Your task to perform on an android device: turn on the 12-hour format for clock Image 0: 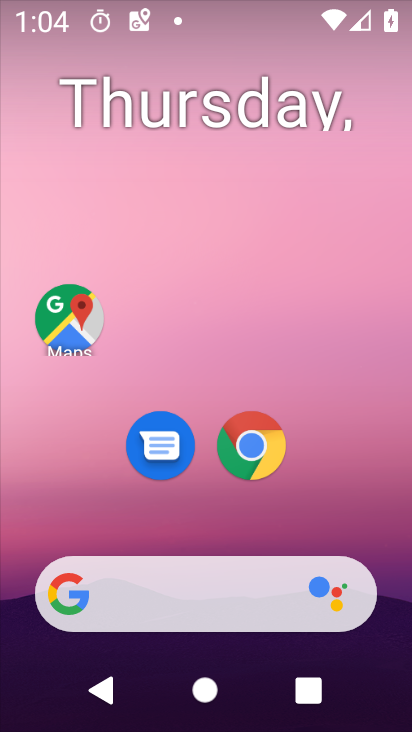
Step 0: drag from (139, 549) to (219, 95)
Your task to perform on an android device: turn on the 12-hour format for clock Image 1: 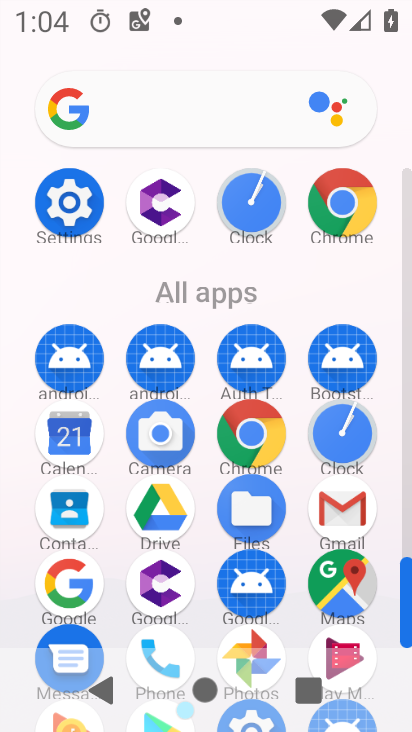
Step 1: click (358, 440)
Your task to perform on an android device: turn on the 12-hour format for clock Image 2: 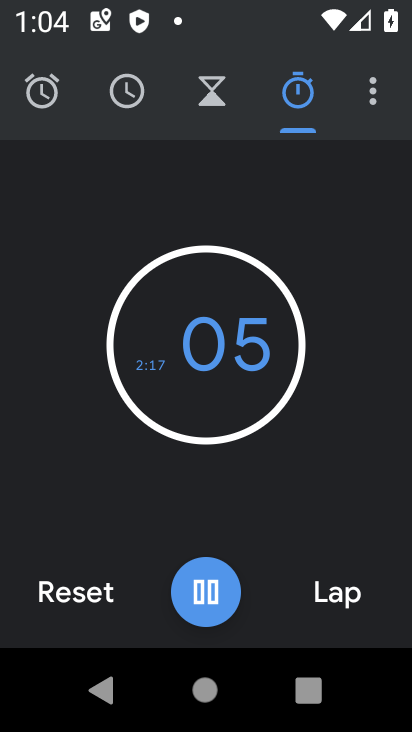
Step 2: click (366, 93)
Your task to perform on an android device: turn on the 12-hour format for clock Image 3: 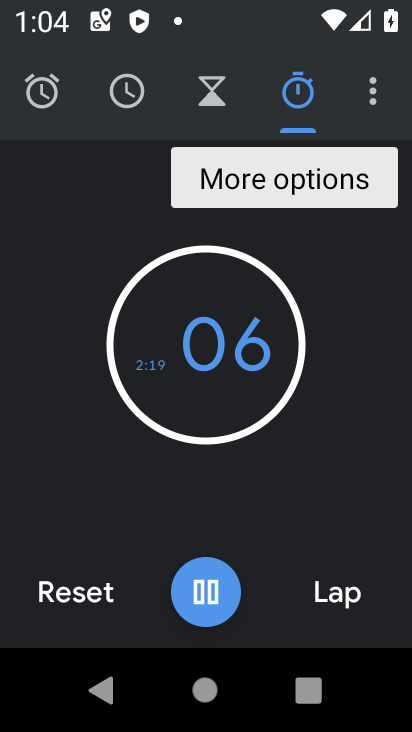
Step 3: click (374, 107)
Your task to perform on an android device: turn on the 12-hour format for clock Image 4: 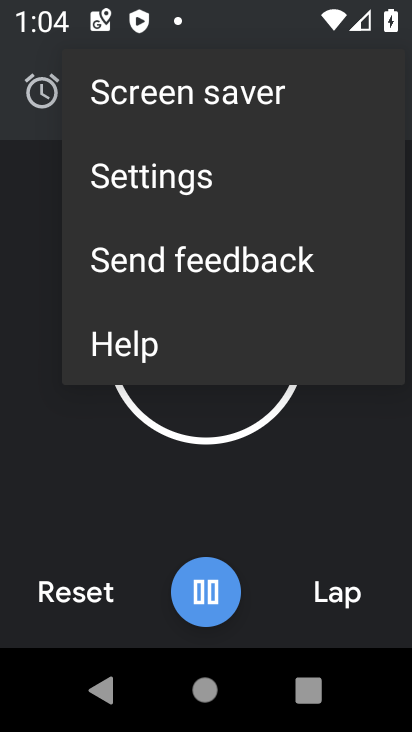
Step 4: click (158, 188)
Your task to perform on an android device: turn on the 12-hour format for clock Image 5: 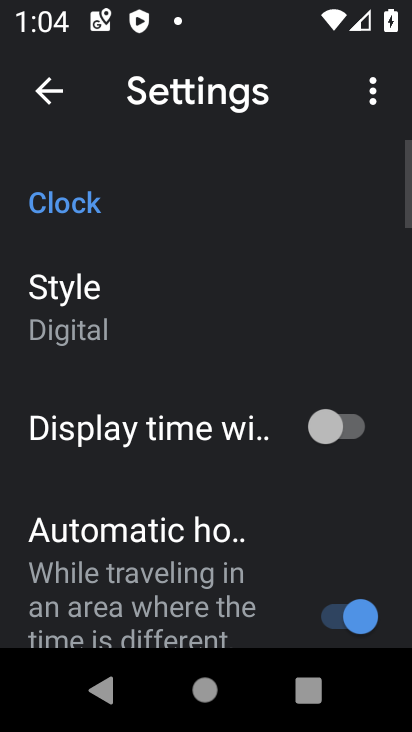
Step 5: drag from (219, 564) to (296, 161)
Your task to perform on an android device: turn on the 12-hour format for clock Image 6: 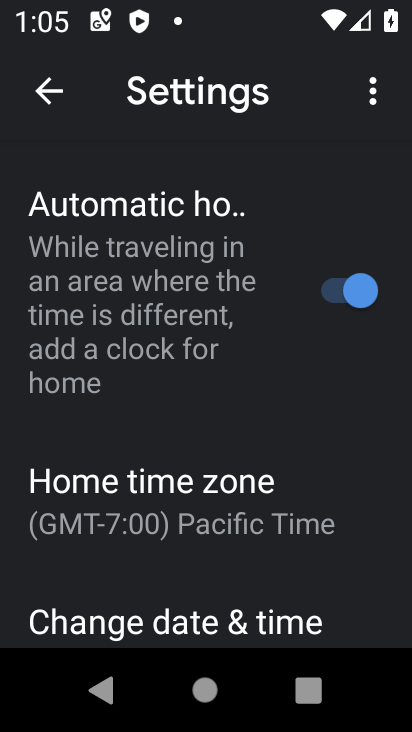
Step 6: drag from (144, 534) to (245, 138)
Your task to perform on an android device: turn on the 12-hour format for clock Image 7: 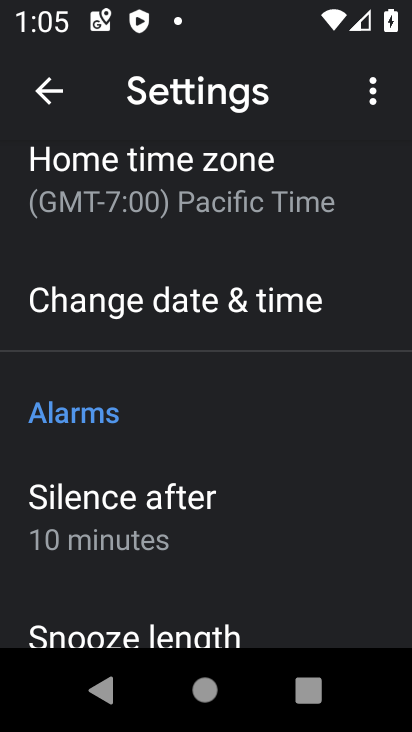
Step 7: click (302, 323)
Your task to perform on an android device: turn on the 12-hour format for clock Image 8: 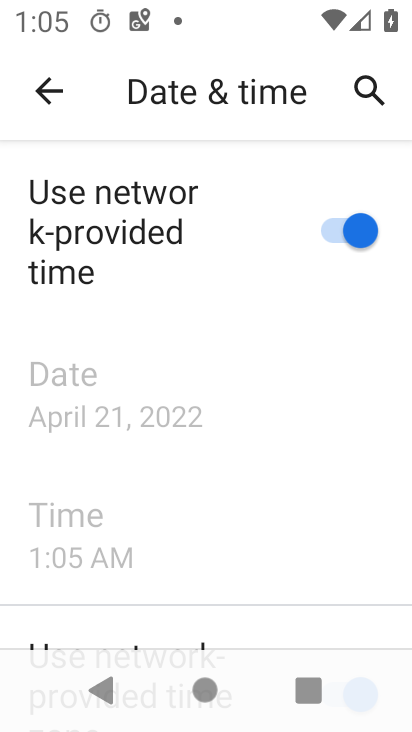
Step 8: task complete